Your task to perform on an android device: toggle notifications settings in the gmail app Image 0: 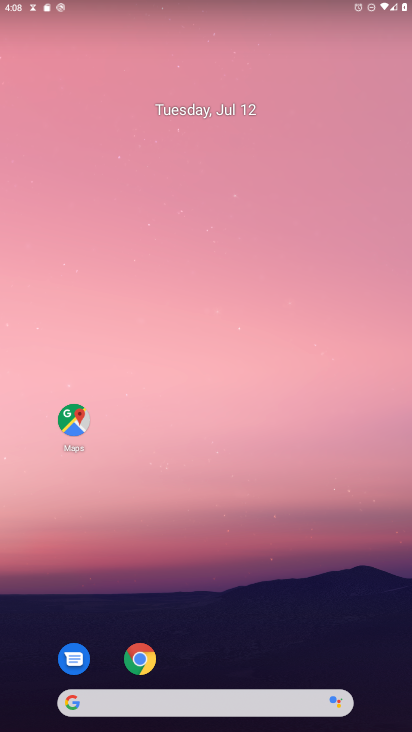
Step 0: drag from (192, 586) to (155, 55)
Your task to perform on an android device: toggle notifications settings in the gmail app Image 1: 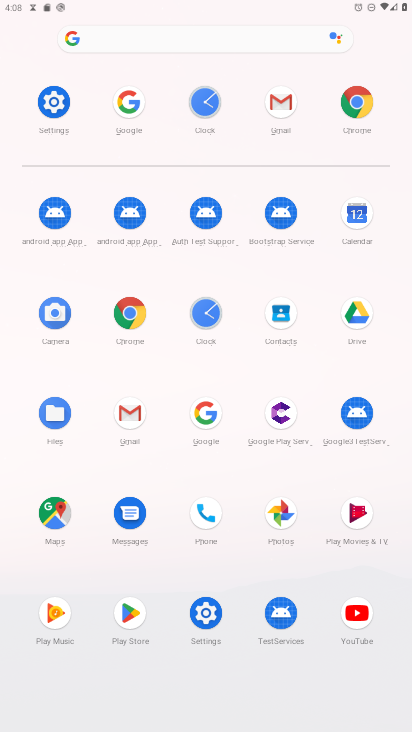
Step 1: click (275, 107)
Your task to perform on an android device: toggle notifications settings in the gmail app Image 2: 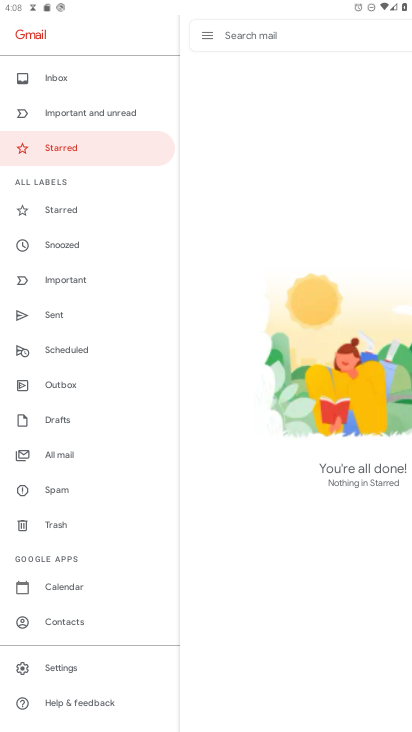
Step 2: click (74, 661)
Your task to perform on an android device: toggle notifications settings in the gmail app Image 3: 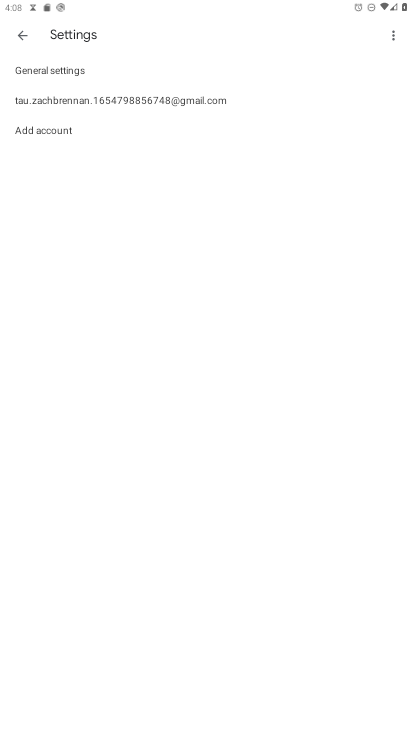
Step 3: click (120, 91)
Your task to perform on an android device: toggle notifications settings in the gmail app Image 4: 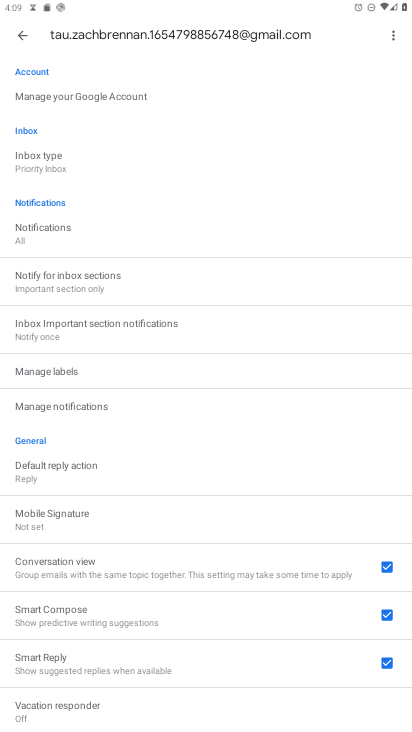
Step 4: click (72, 408)
Your task to perform on an android device: toggle notifications settings in the gmail app Image 5: 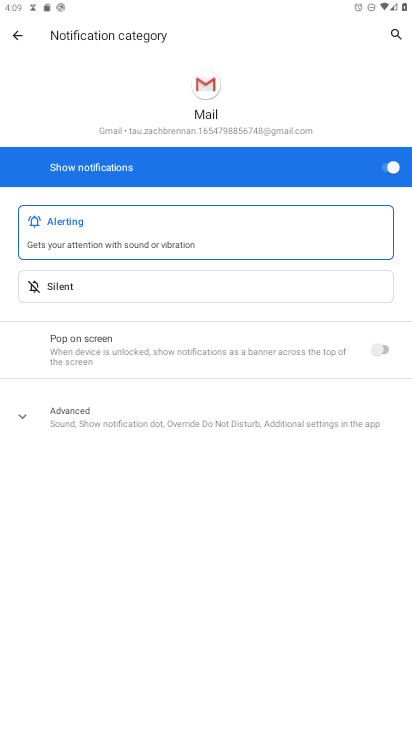
Step 5: click (388, 173)
Your task to perform on an android device: toggle notifications settings in the gmail app Image 6: 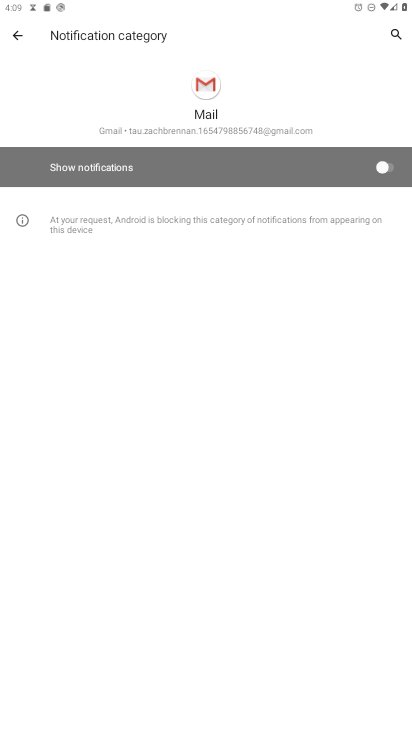
Step 6: task complete